Your task to perform on an android device: Open display settings Image 0: 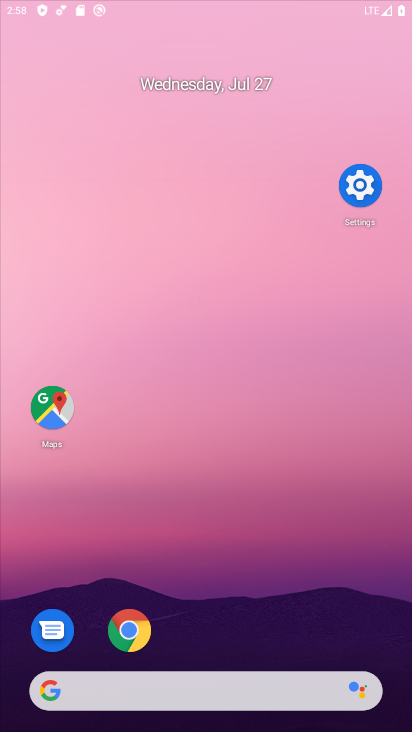
Step 0: press home button
Your task to perform on an android device: Open display settings Image 1: 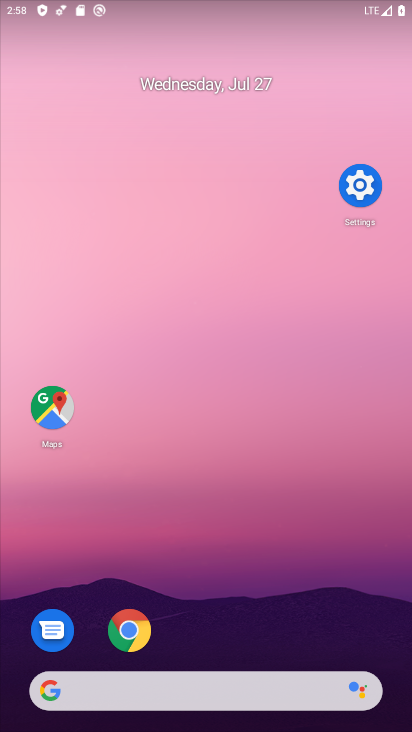
Step 1: drag from (201, 628) to (333, 61)
Your task to perform on an android device: Open display settings Image 2: 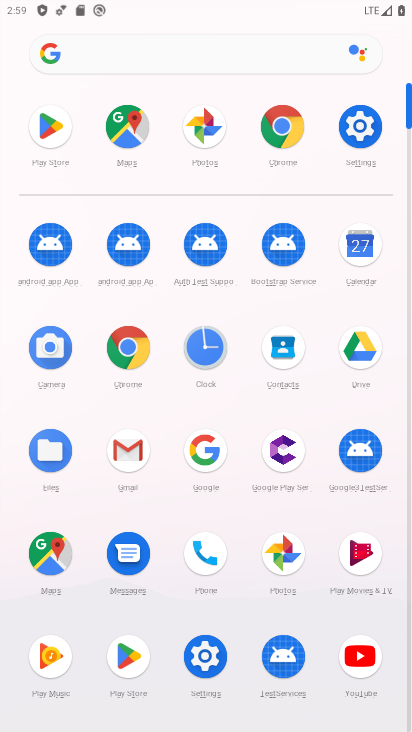
Step 2: click (351, 126)
Your task to perform on an android device: Open display settings Image 3: 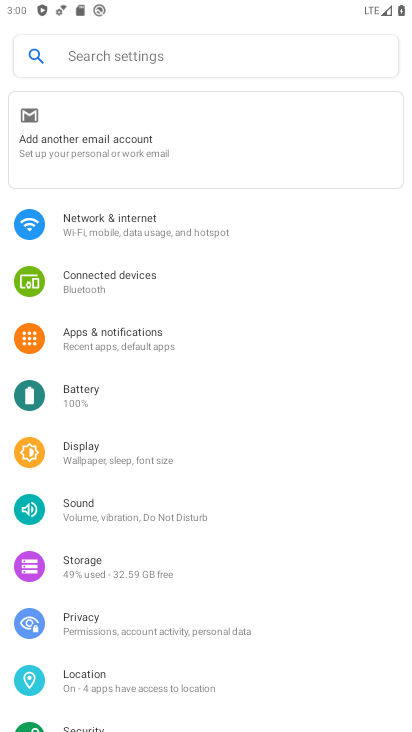
Step 3: click (83, 457)
Your task to perform on an android device: Open display settings Image 4: 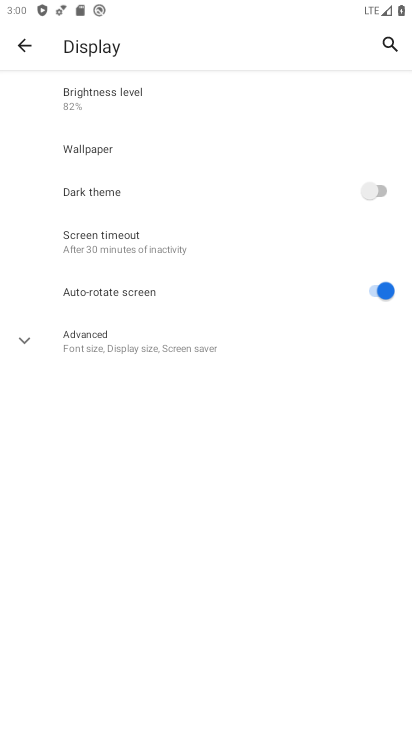
Step 4: task complete